Your task to perform on an android device: Search for seafood restaurants on Google Maps Image 0: 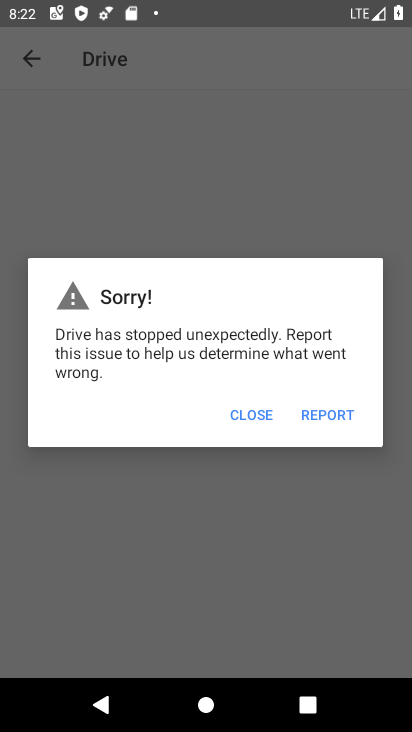
Step 0: press home button
Your task to perform on an android device: Search for seafood restaurants on Google Maps Image 1: 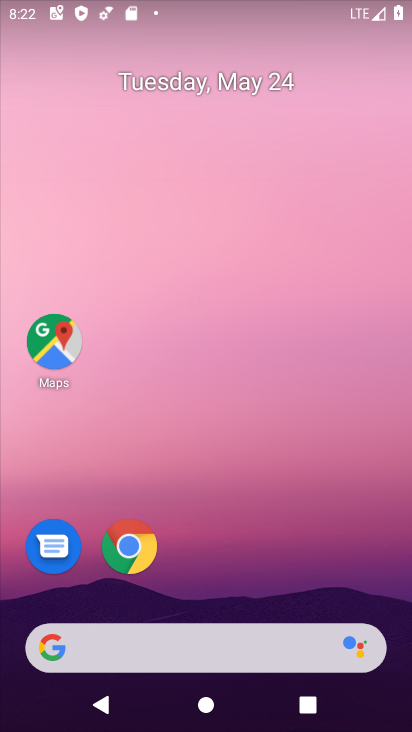
Step 1: click (49, 349)
Your task to perform on an android device: Search for seafood restaurants on Google Maps Image 2: 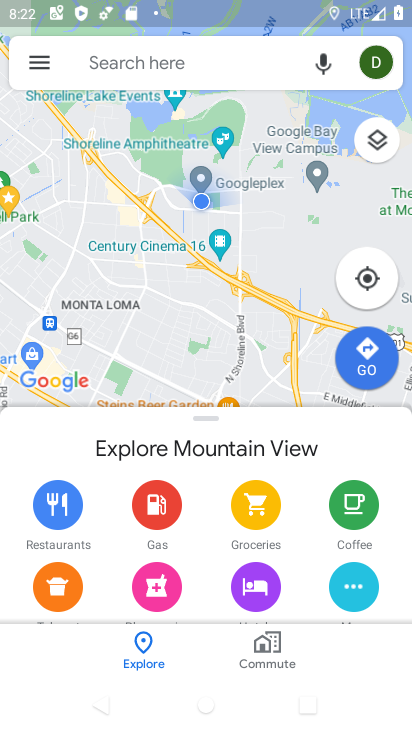
Step 2: click (239, 57)
Your task to perform on an android device: Search for seafood restaurants on Google Maps Image 3: 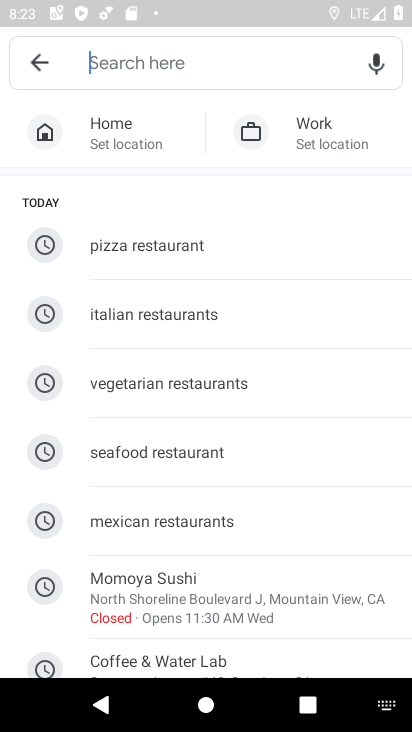
Step 3: click (196, 459)
Your task to perform on an android device: Search for seafood restaurants on Google Maps Image 4: 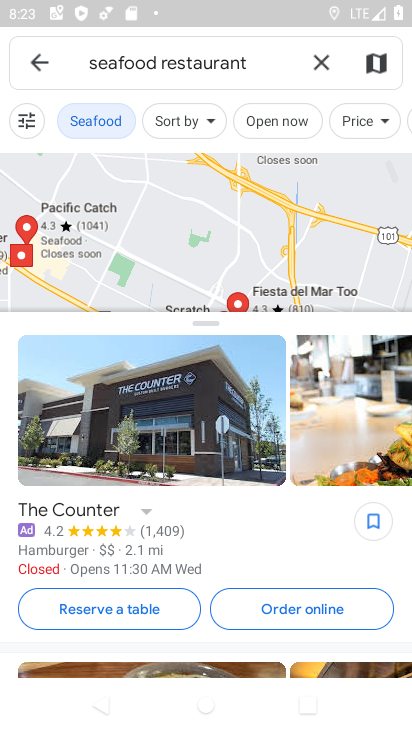
Step 4: task complete